Your task to perform on an android device: Open the web browser Image 0: 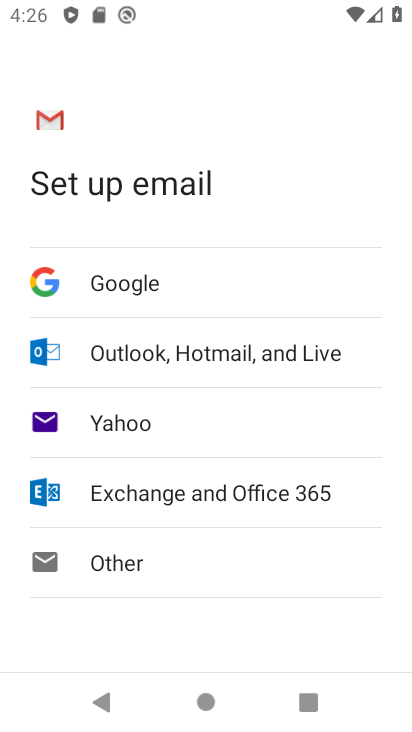
Step 0: press back button
Your task to perform on an android device: Open the web browser Image 1: 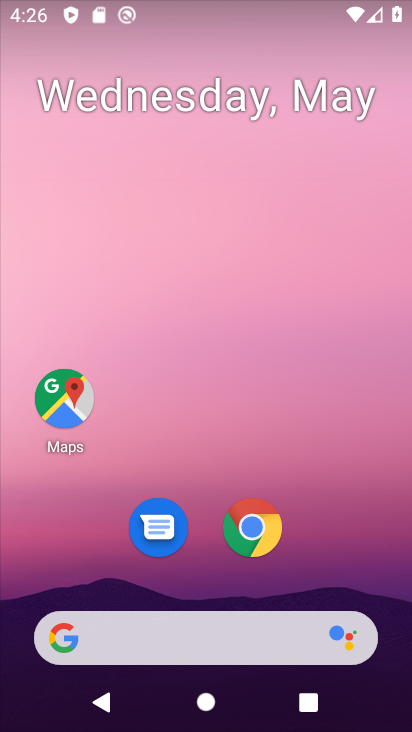
Step 1: drag from (77, 607) to (160, 178)
Your task to perform on an android device: Open the web browser Image 2: 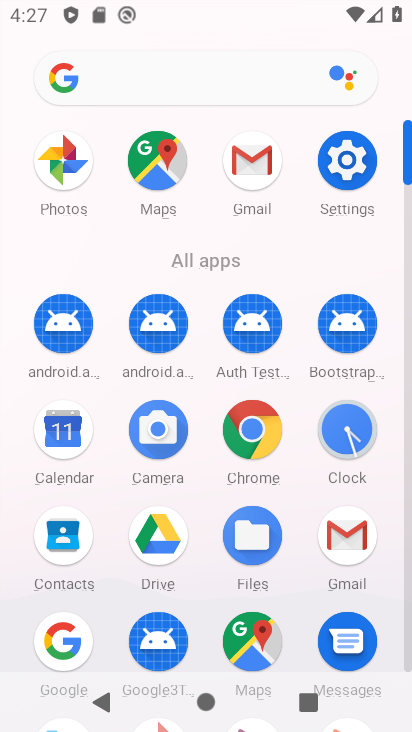
Step 2: click (43, 642)
Your task to perform on an android device: Open the web browser Image 3: 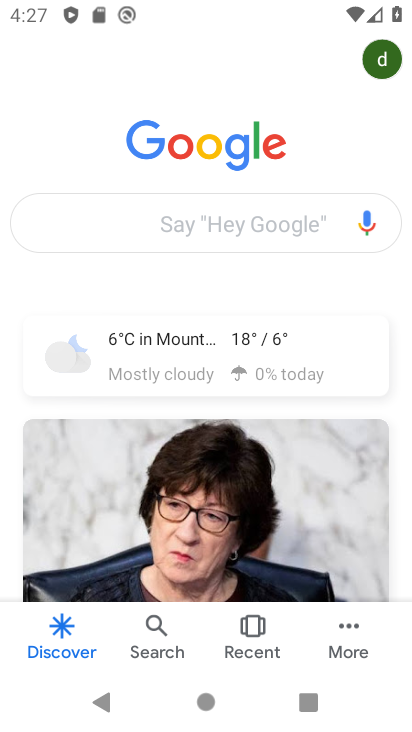
Step 3: task complete